Your task to perform on an android device: change keyboard looks Image 0: 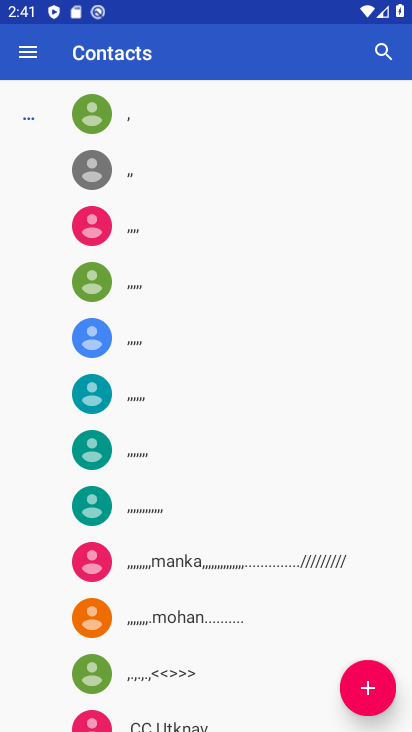
Step 0: press home button
Your task to perform on an android device: change keyboard looks Image 1: 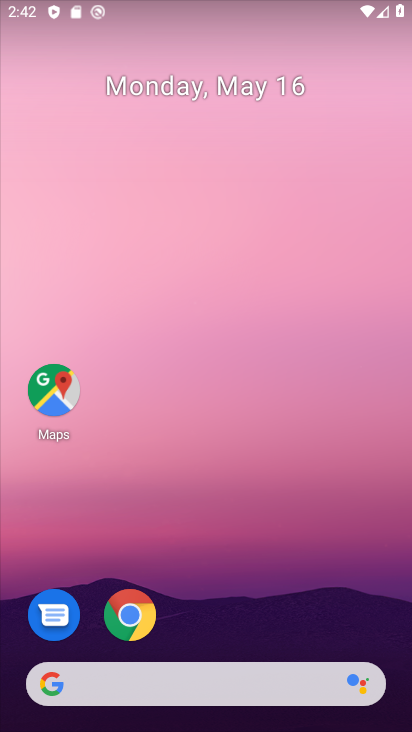
Step 1: drag from (264, 629) to (283, 12)
Your task to perform on an android device: change keyboard looks Image 2: 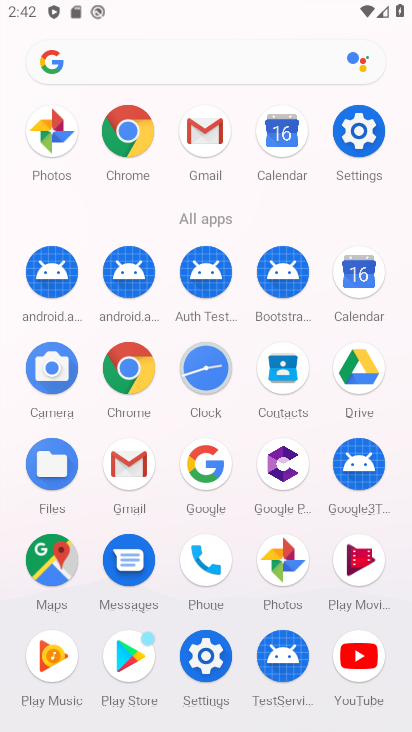
Step 2: click (351, 141)
Your task to perform on an android device: change keyboard looks Image 3: 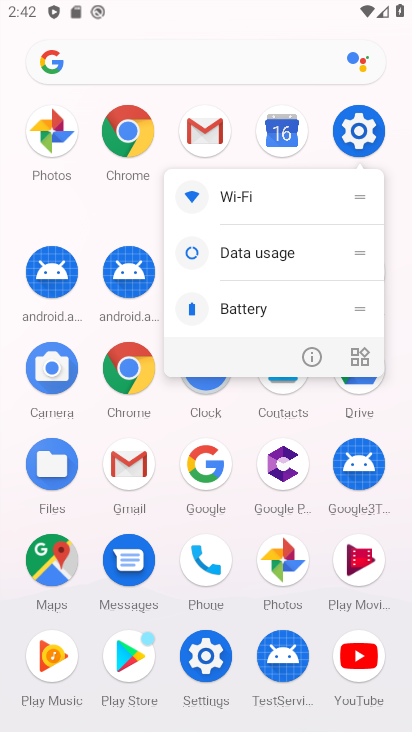
Step 3: click (365, 133)
Your task to perform on an android device: change keyboard looks Image 4: 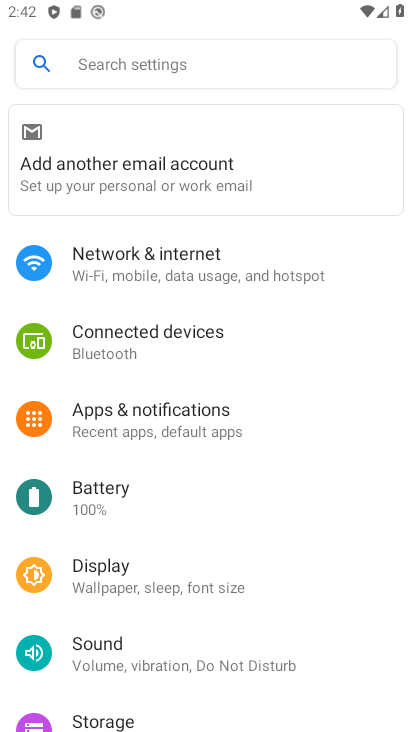
Step 4: drag from (265, 631) to (271, 142)
Your task to perform on an android device: change keyboard looks Image 5: 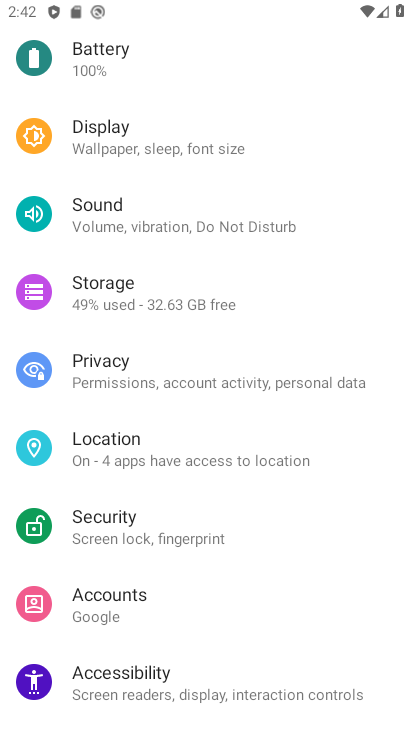
Step 5: drag from (252, 582) to (284, 200)
Your task to perform on an android device: change keyboard looks Image 6: 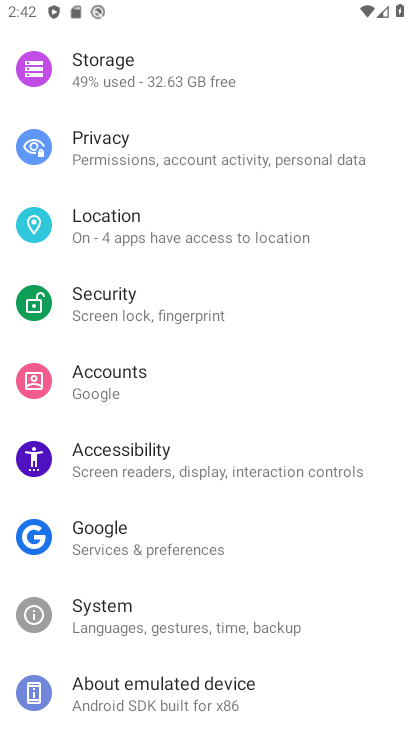
Step 6: click (82, 611)
Your task to perform on an android device: change keyboard looks Image 7: 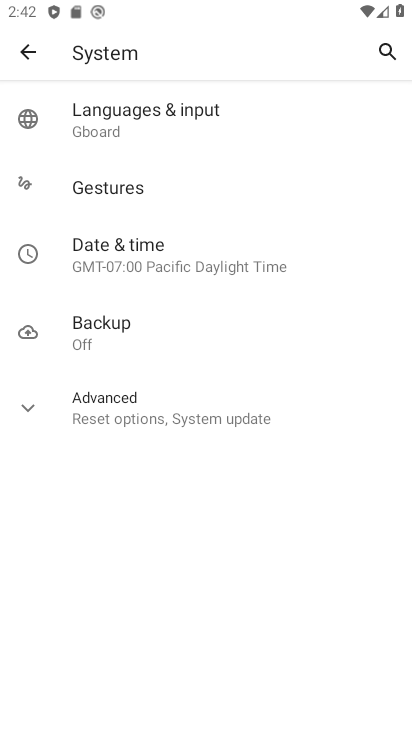
Step 7: click (102, 129)
Your task to perform on an android device: change keyboard looks Image 8: 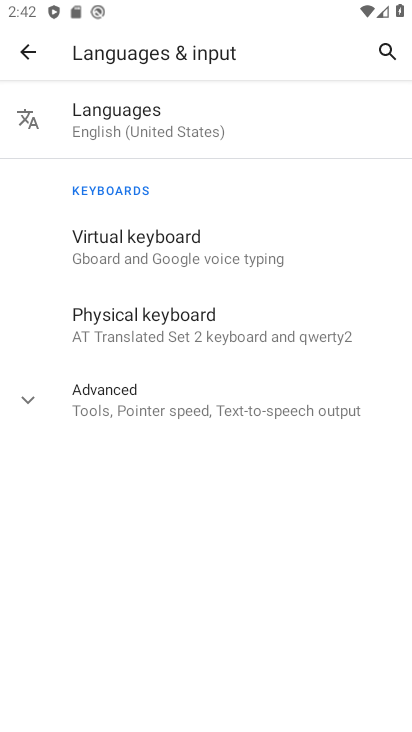
Step 8: click (114, 250)
Your task to perform on an android device: change keyboard looks Image 9: 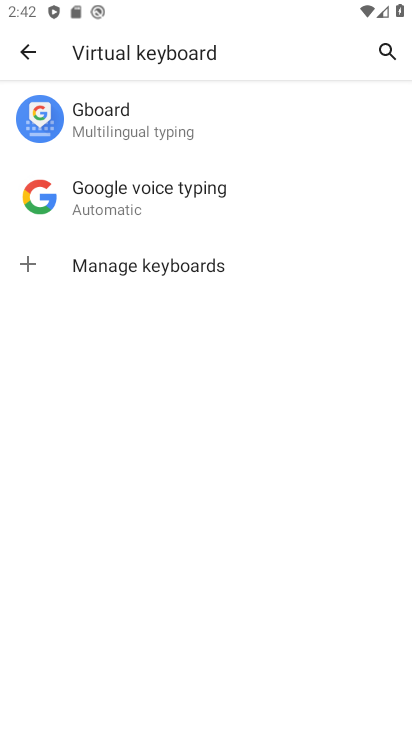
Step 9: click (85, 121)
Your task to perform on an android device: change keyboard looks Image 10: 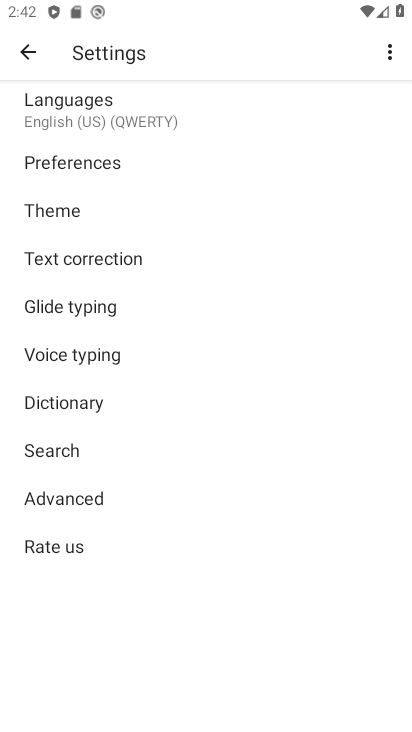
Step 10: click (59, 212)
Your task to perform on an android device: change keyboard looks Image 11: 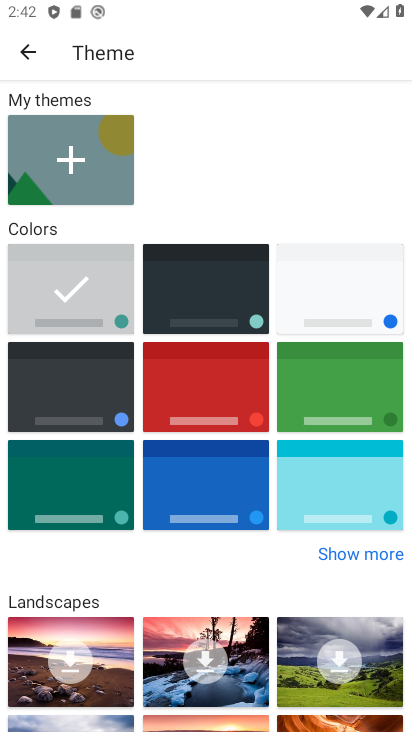
Step 11: click (189, 485)
Your task to perform on an android device: change keyboard looks Image 12: 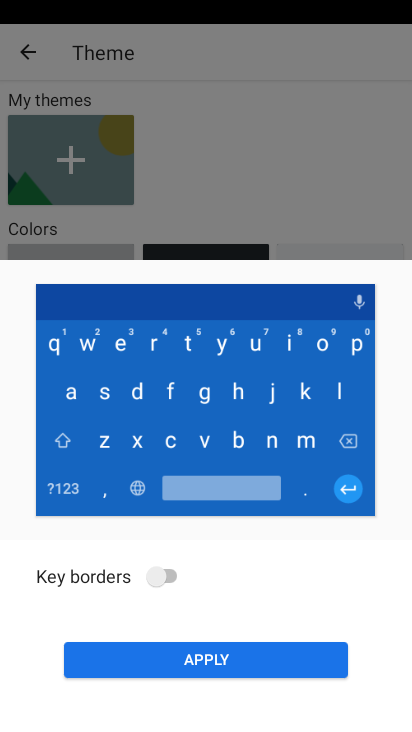
Step 12: click (154, 579)
Your task to perform on an android device: change keyboard looks Image 13: 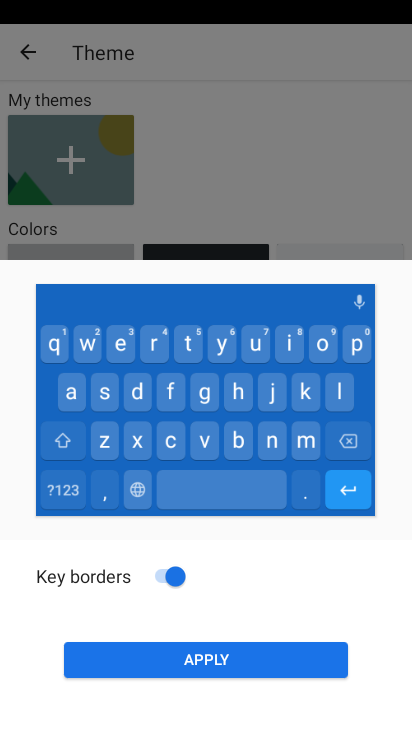
Step 13: click (196, 662)
Your task to perform on an android device: change keyboard looks Image 14: 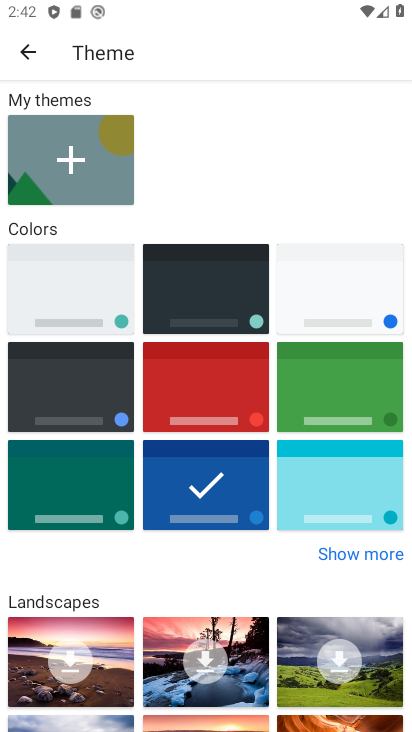
Step 14: task complete